Your task to perform on an android device: delete a single message in the gmail app Image 0: 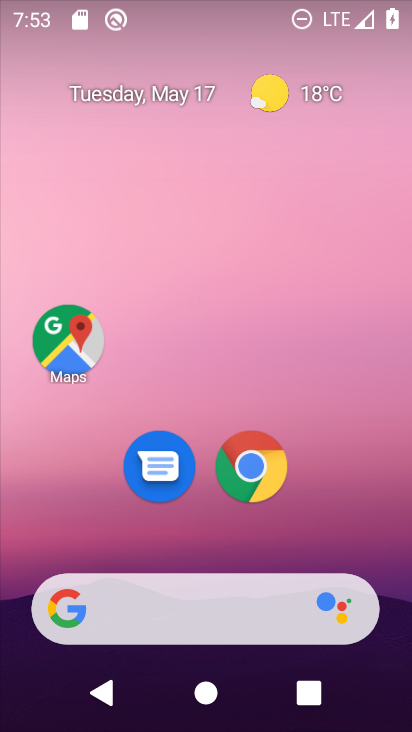
Step 0: drag from (192, 603) to (337, 196)
Your task to perform on an android device: delete a single message in the gmail app Image 1: 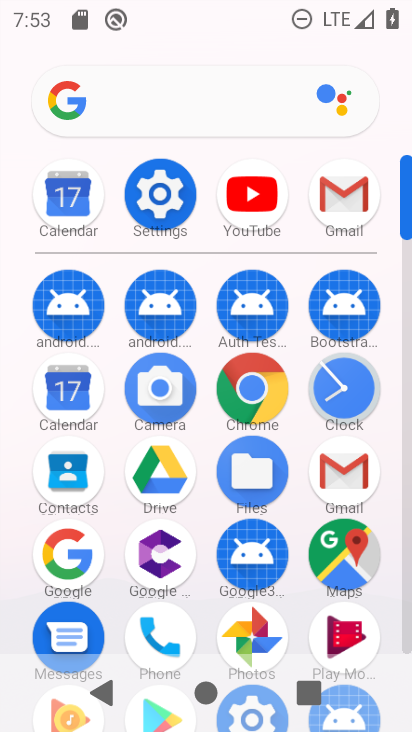
Step 1: click (354, 211)
Your task to perform on an android device: delete a single message in the gmail app Image 2: 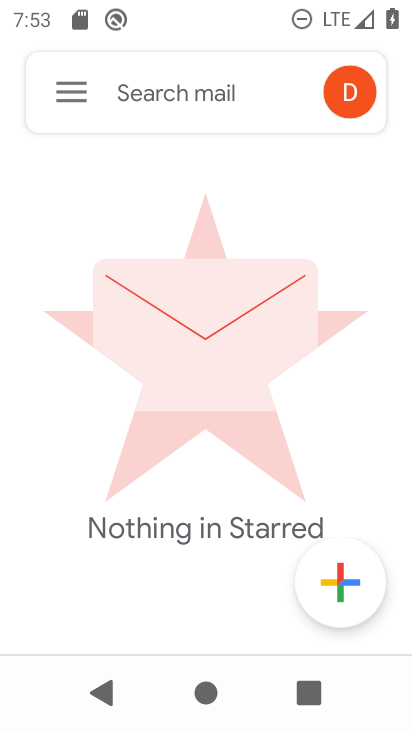
Step 2: click (72, 91)
Your task to perform on an android device: delete a single message in the gmail app Image 3: 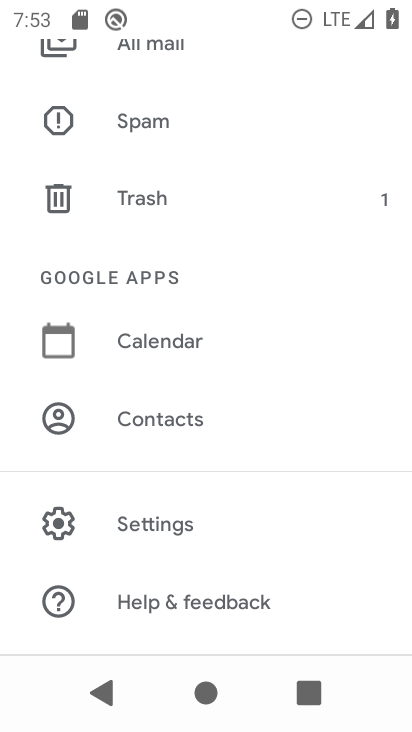
Step 3: click (167, 49)
Your task to perform on an android device: delete a single message in the gmail app Image 4: 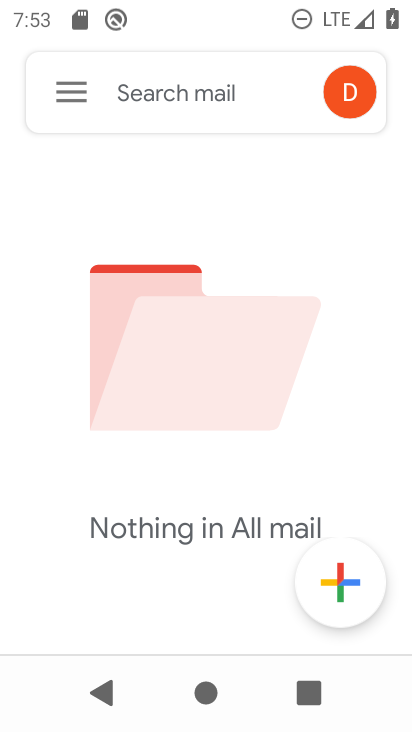
Step 4: task complete